Your task to perform on an android device: Go to settings Image 0: 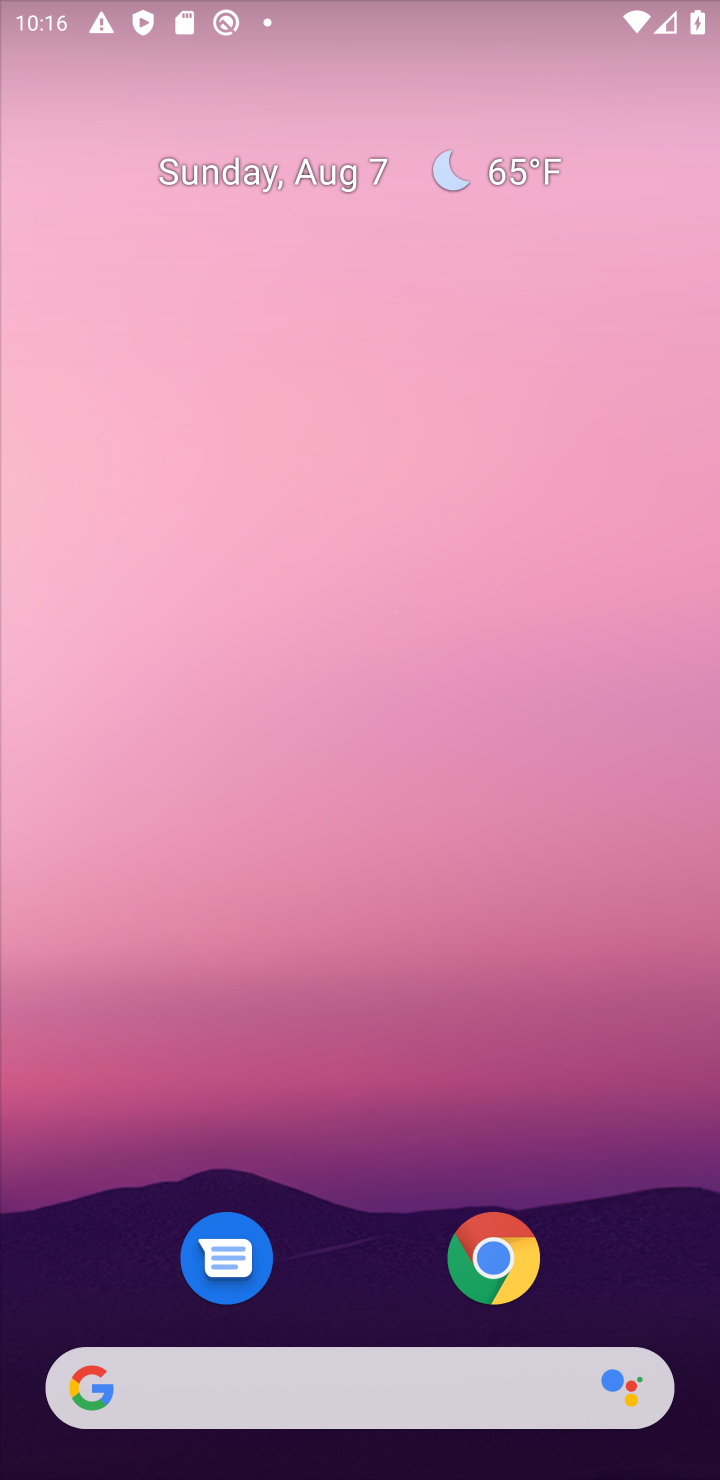
Step 0: press home button
Your task to perform on an android device: Go to settings Image 1: 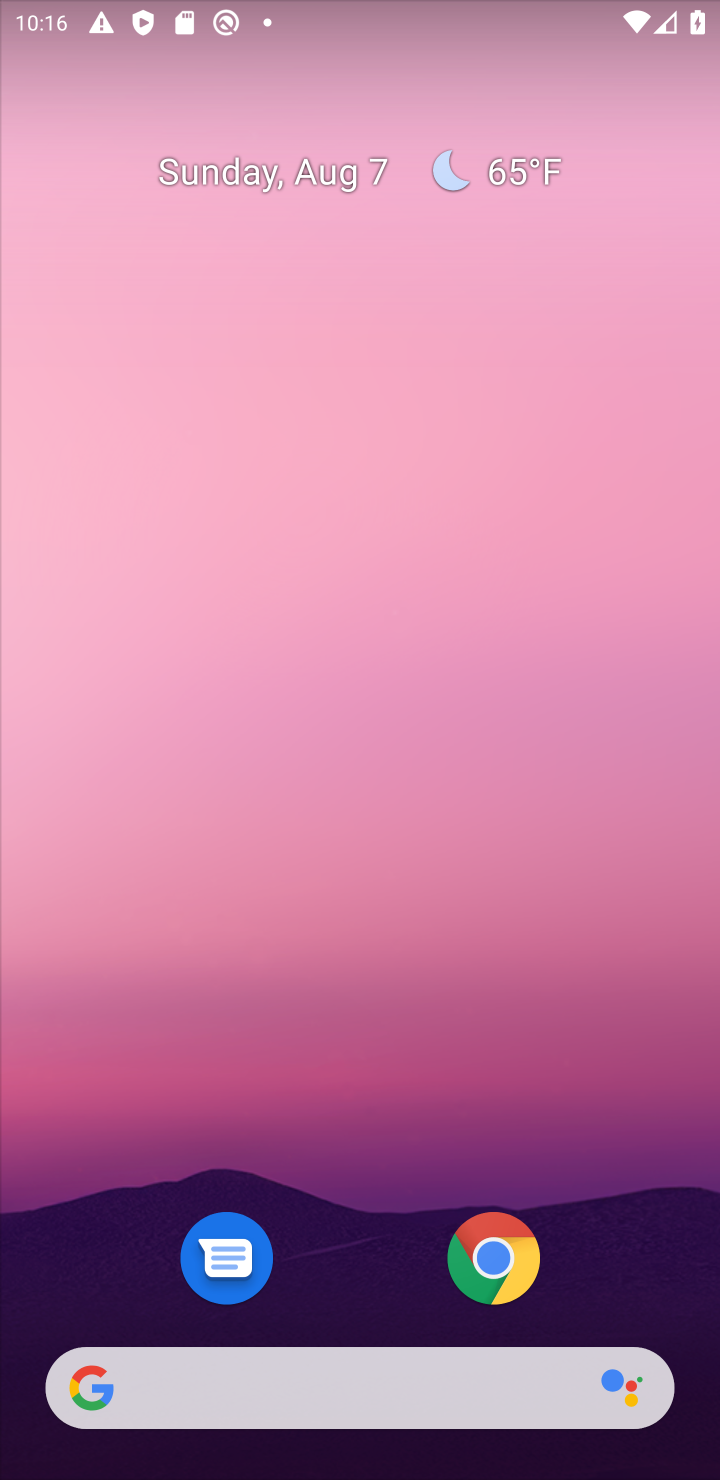
Step 1: click (484, 13)
Your task to perform on an android device: Go to settings Image 2: 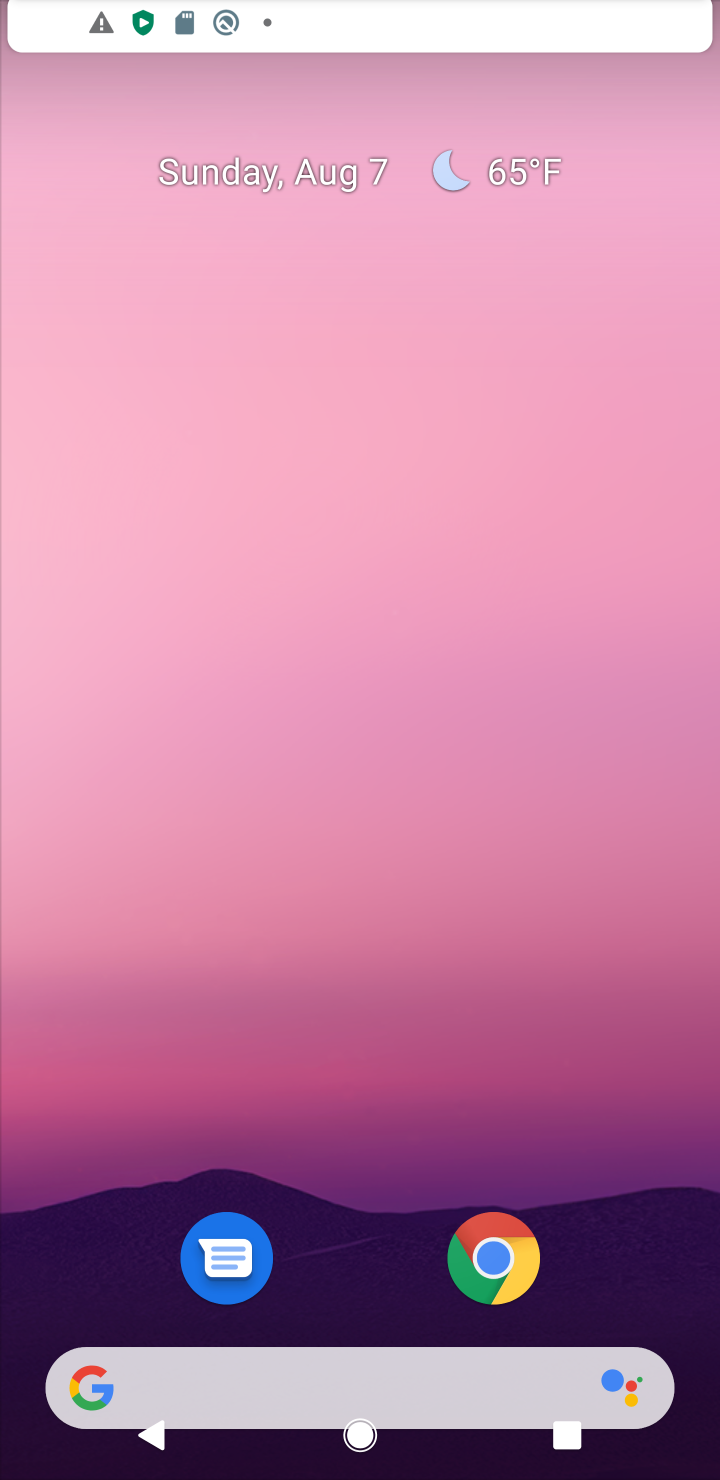
Step 2: drag from (280, 1022) to (66, 0)
Your task to perform on an android device: Go to settings Image 3: 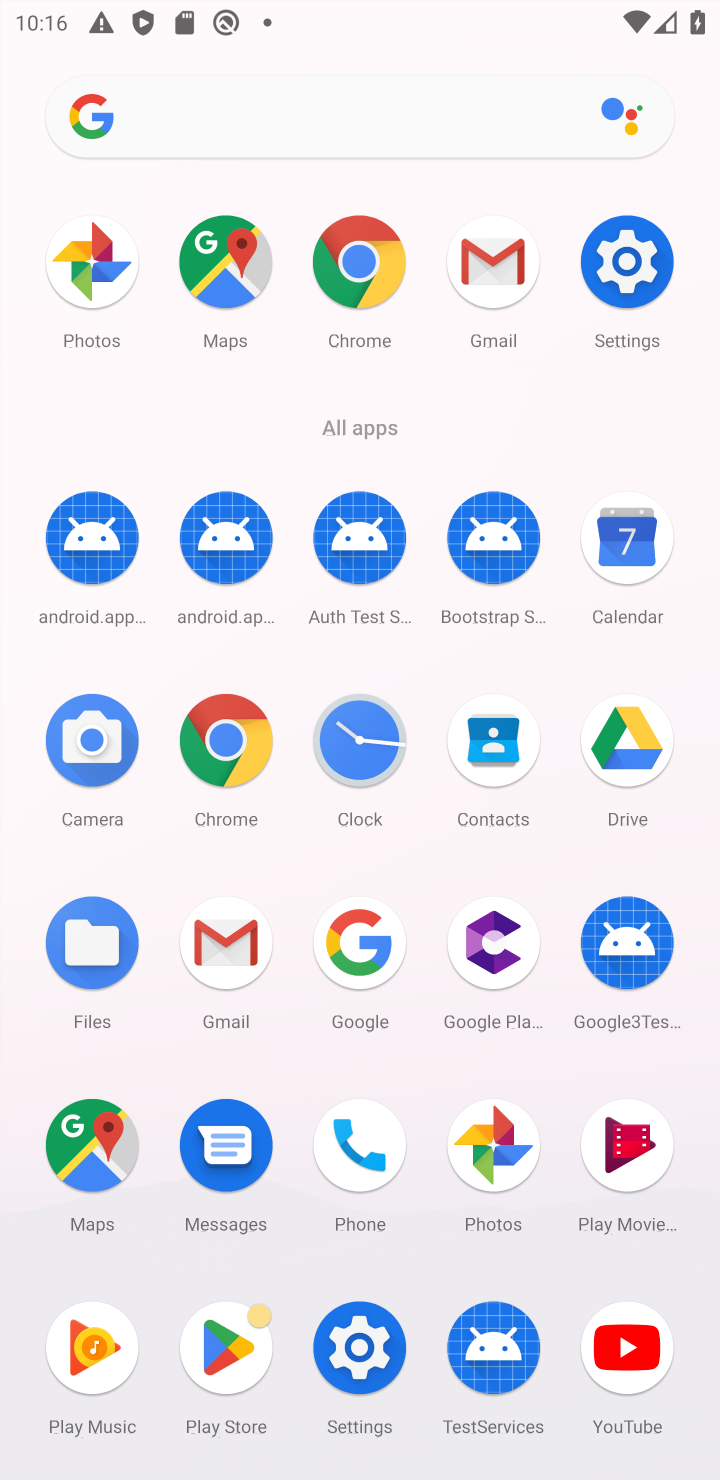
Step 3: click (371, 1369)
Your task to perform on an android device: Go to settings Image 4: 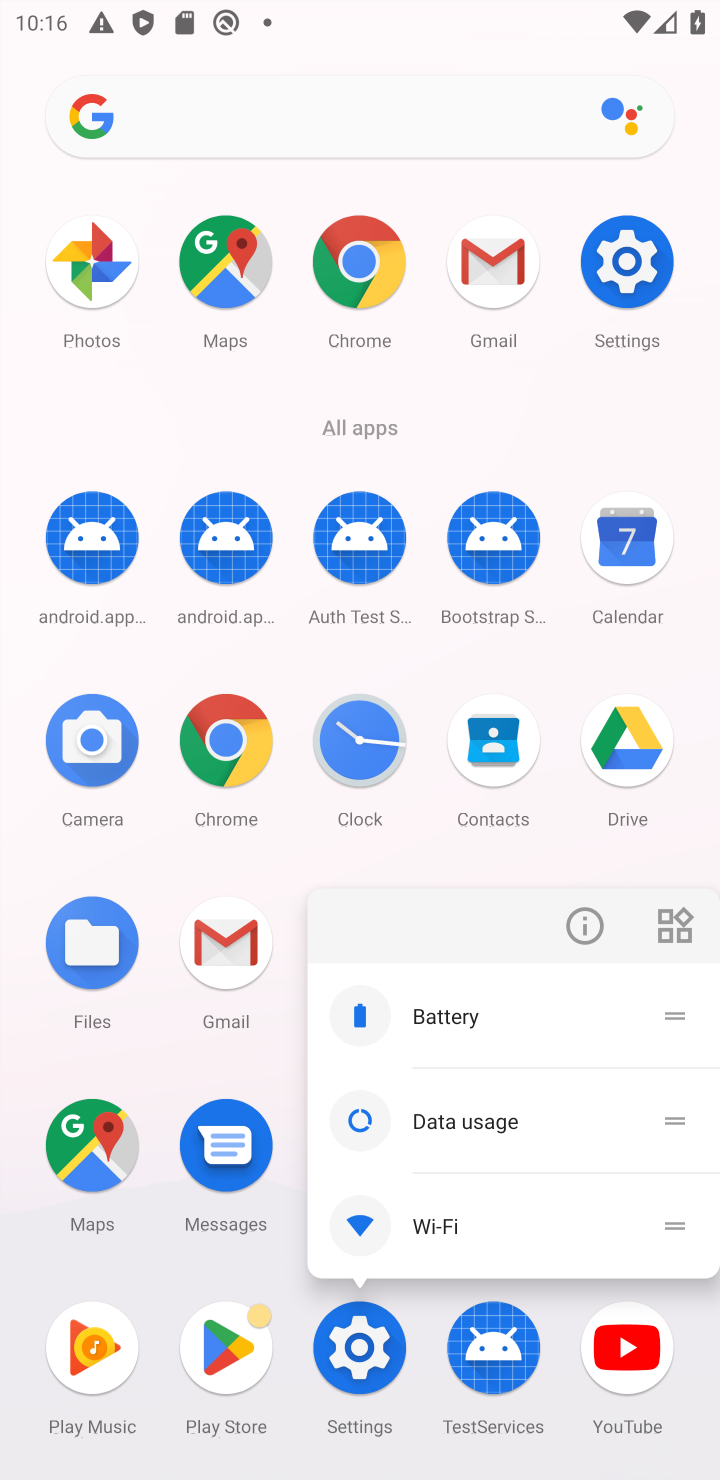
Step 4: click (354, 1350)
Your task to perform on an android device: Go to settings Image 5: 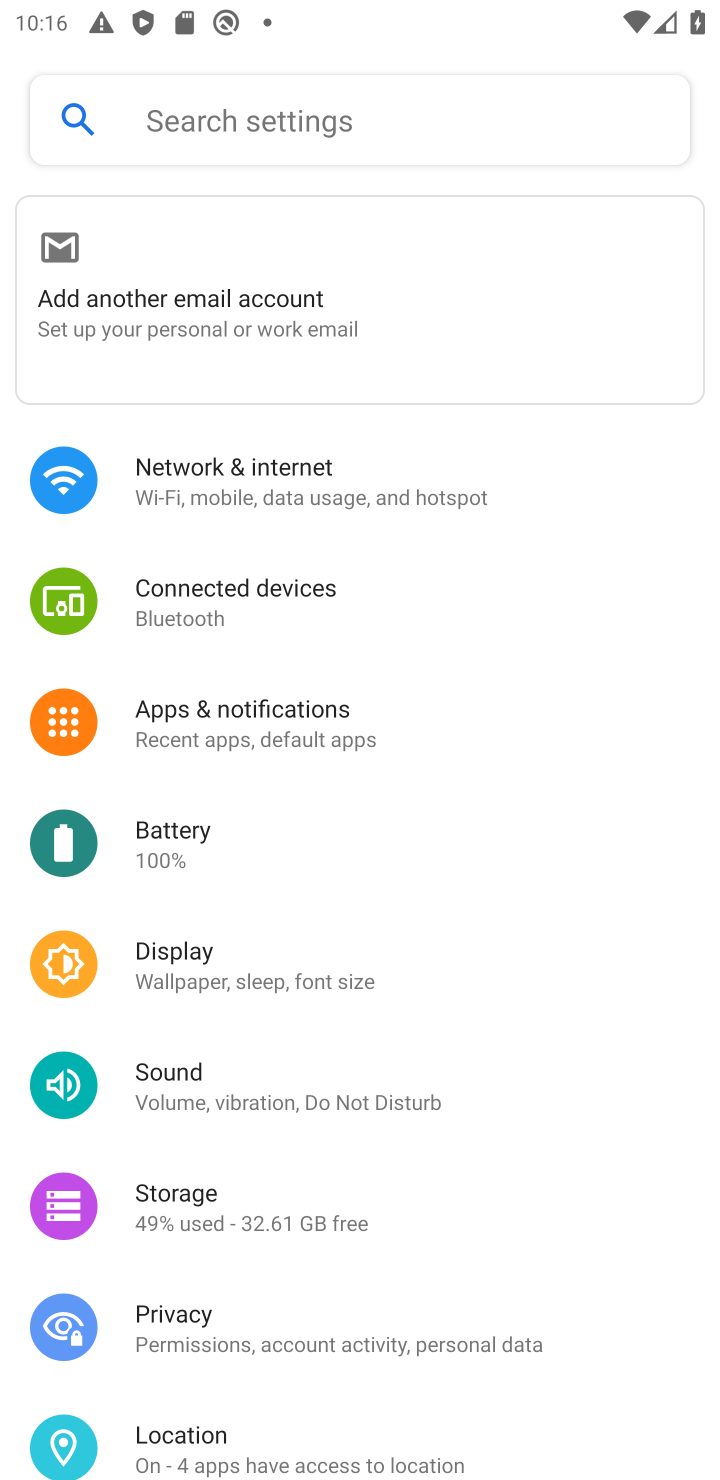
Step 5: task complete